Your task to perform on an android device: stop showing notifications on the lock screen Image 0: 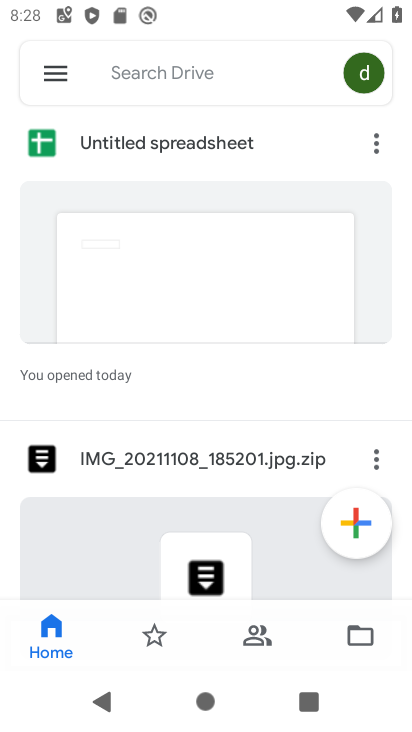
Step 0: press home button
Your task to perform on an android device: stop showing notifications on the lock screen Image 1: 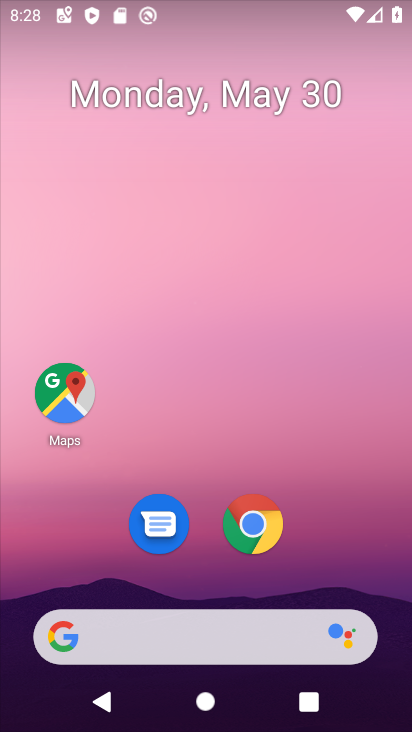
Step 1: drag from (336, 490) to (345, 44)
Your task to perform on an android device: stop showing notifications on the lock screen Image 2: 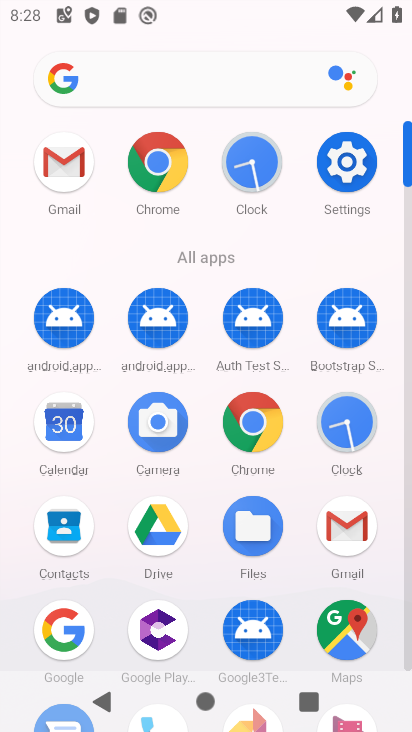
Step 2: click (357, 173)
Your task to perform on an android device: stop showing notifications on the lock screen Image 3: 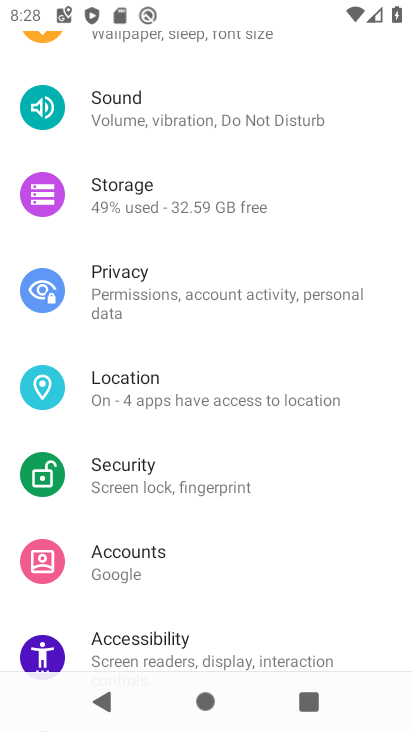
Step 3: drag from (239, 219) to (217, 633)
Your task to perform on an android device: stop showing notifications on the lock screen Image 4: 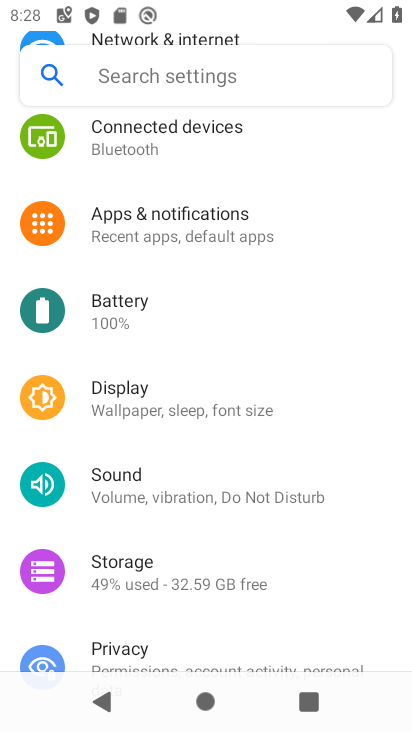
Step 4: click (228, 231)
Your task to perform on an android device: stop showing notifications on the lock screen Image 5: 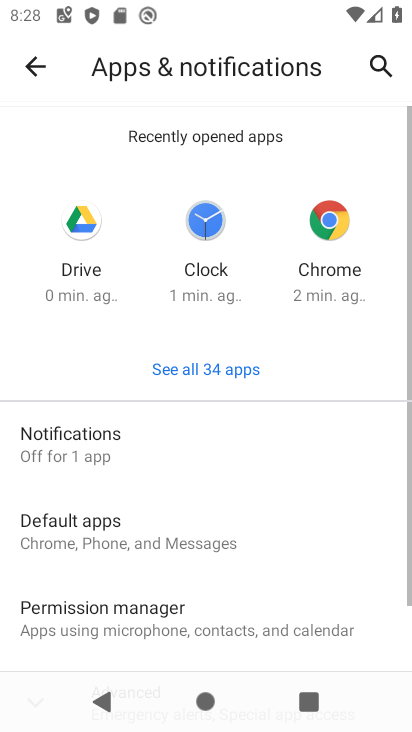
Step 5: click (131, 449)
Your task to perform on an android device: stop showing notifications on the lock screen Image 6: 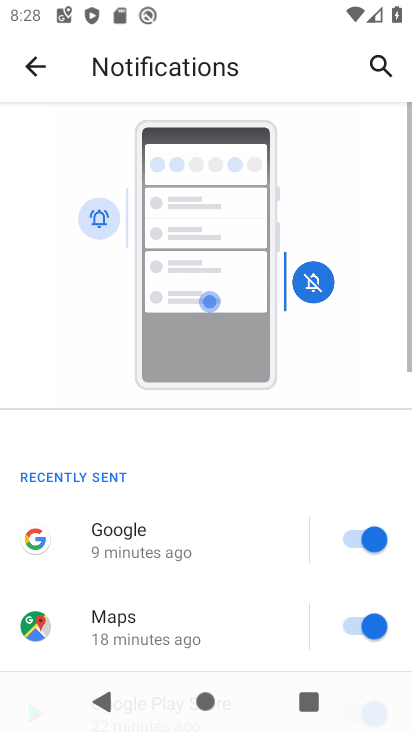
Step 6: drag from (227, 531) to (264, 6)
Your task to perform on an android device: stop showing notifications on the lock screen Image 7: 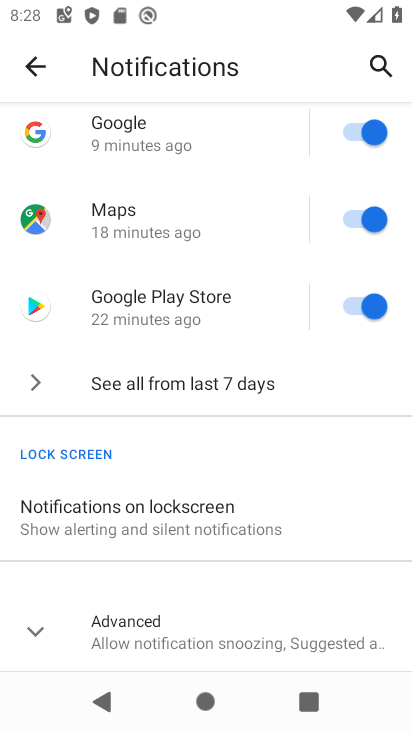
Step 7: click (176, 526)
Your task to perform on an android device: stop showing notifications on the lock screen Image 8: 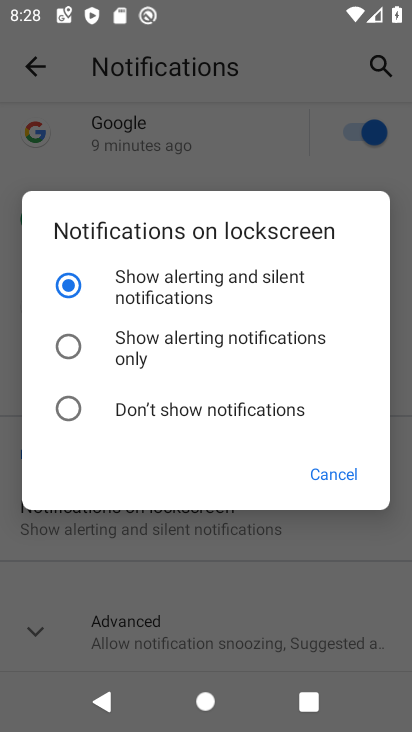
Step 8: click (61, 406)
Your task to perform on an android device: stop showing notifications on the lock screen Image 9: 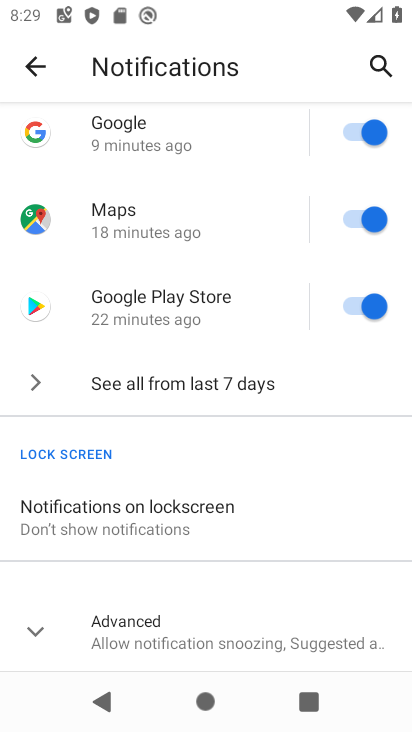
Step 9: task complete